Your task to perform on an android device: turn on javascript in the chrome app Image 0: 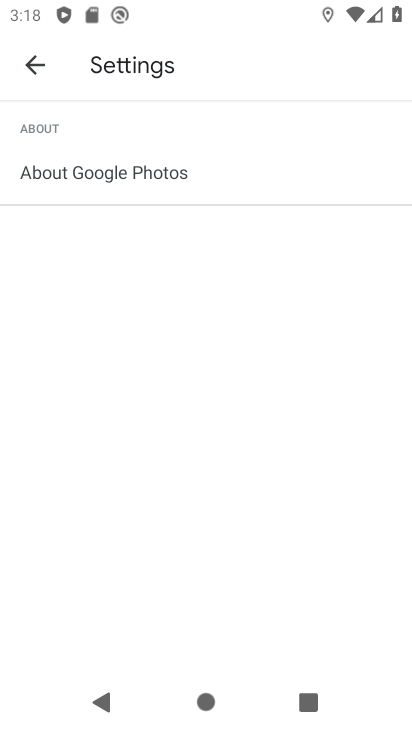
Step 0: press home button
Your task to perform on an android device: turn on javascript in the chrome app Image 1: 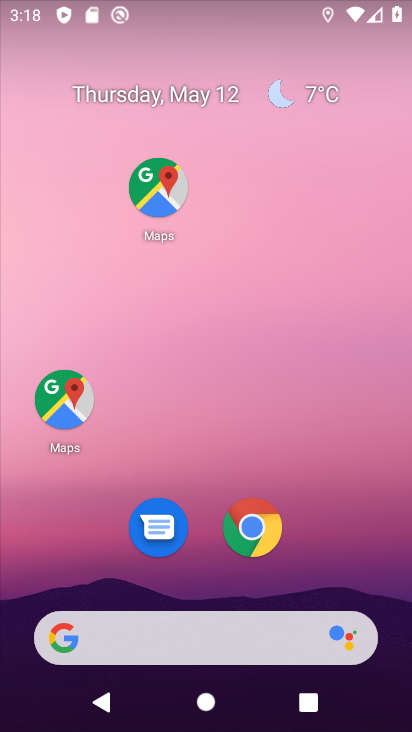
Step 1: click (246, 512)
Your task to perform on an android device: turn on javascript in the chrome app Image 2: 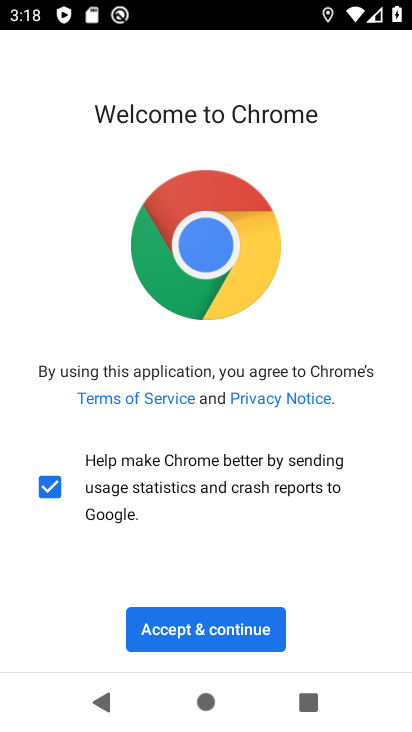
Step 2: click (215, 631)
Your task to perform on an android device: turn on javascript in the chrome app Image 3: 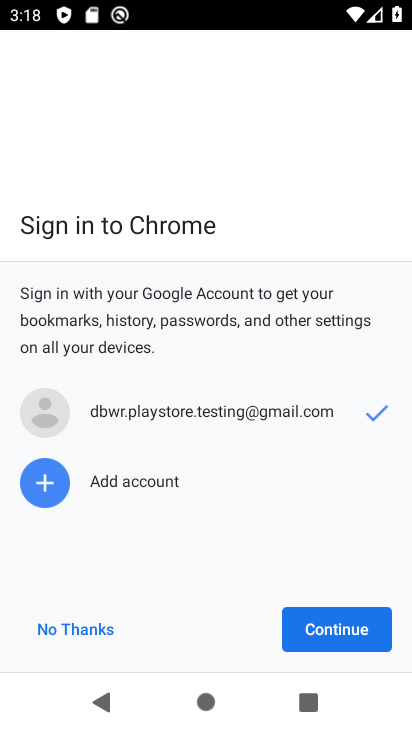
Step 3: click (300, 621)
Your task to perform on an android device: turn on javascript in the chrome app Image 4: 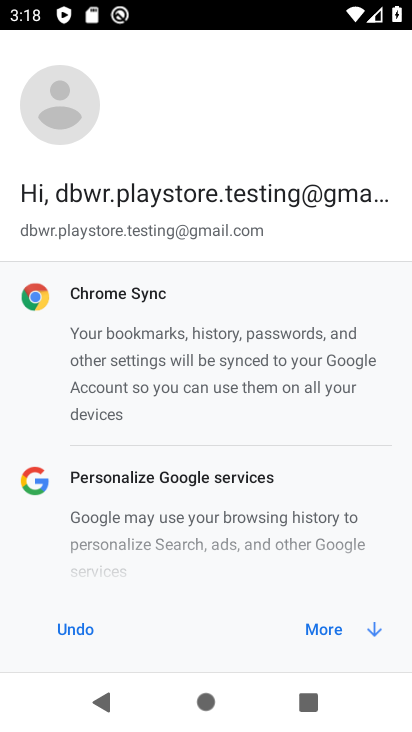
Step 4: click (345, 629)
Your task to perform on an android device: turn on javascript in the chrome app Image 5: 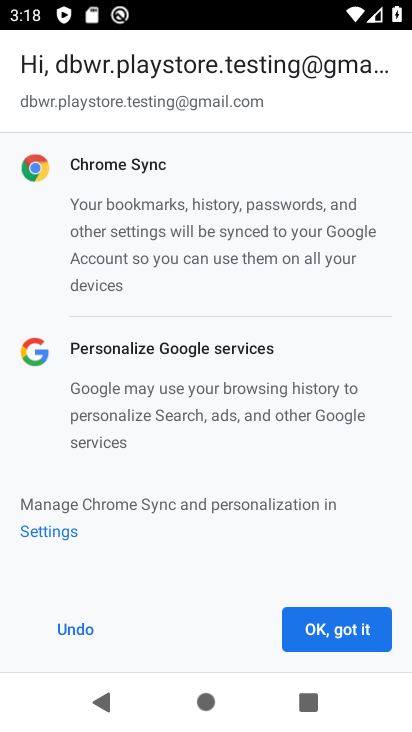
Step 5: click (344, 626)
Your task to perform on an android device: turn on javascript in the chrome app Image 6: 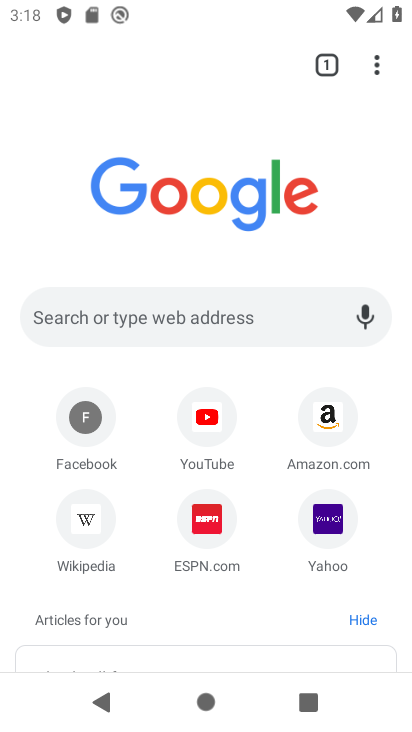
Step 6: click (384, 63)
Your task to perform on an android device: turn on javascript in the chrome app Image 7: 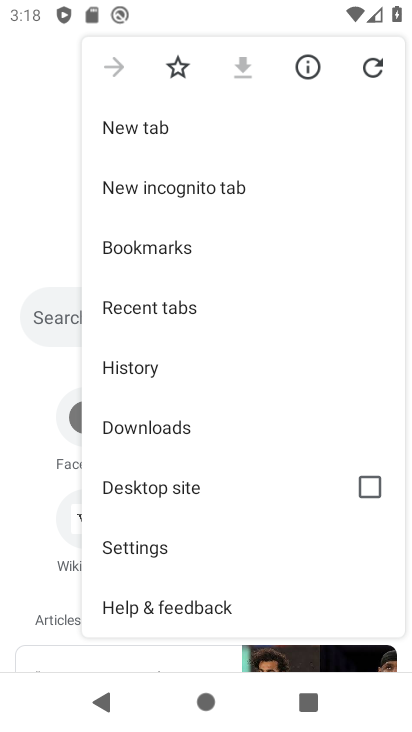
Step 7: click (145, 540)
Your task to perform on an android device: turn on javascript in the chrome app Image 8: 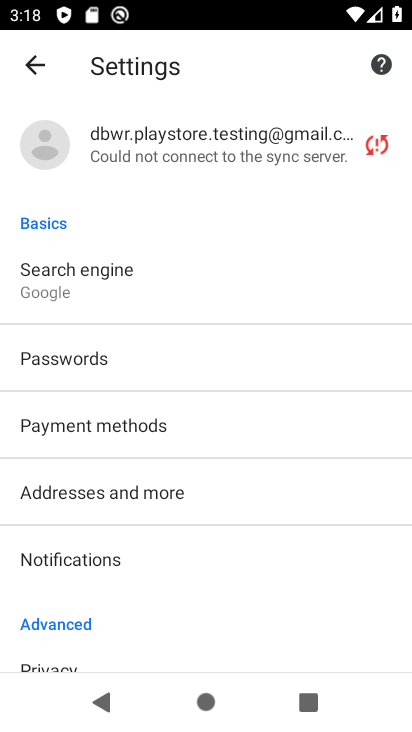
Step 8: drag from (141, 516) to (87, 146)
Your task to perform on an android device: turn on javascript in the chrome app Image 9: 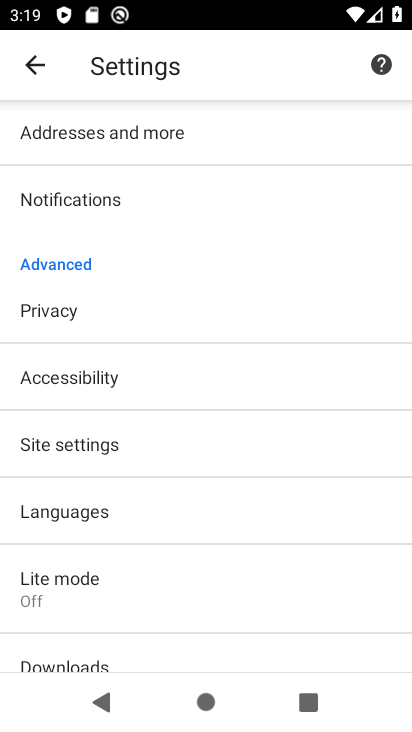
Step 9: click (79, 460)
Your task to perform on an android device: turn on javascript in the chrome app Image 10: 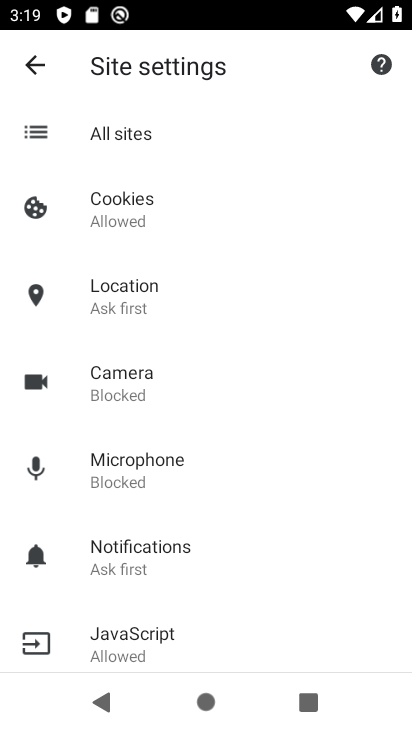
Step 10: click (155, 637)
Your task to perform on an android device: turn on javascript in the chrome app Image 11: 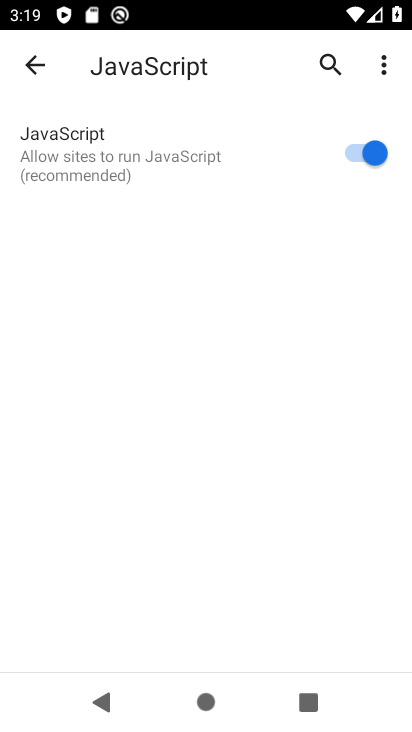
Step 11: task complete